Your task to perform on an android device: see tabs open on other devices in the chrome app Image 0: 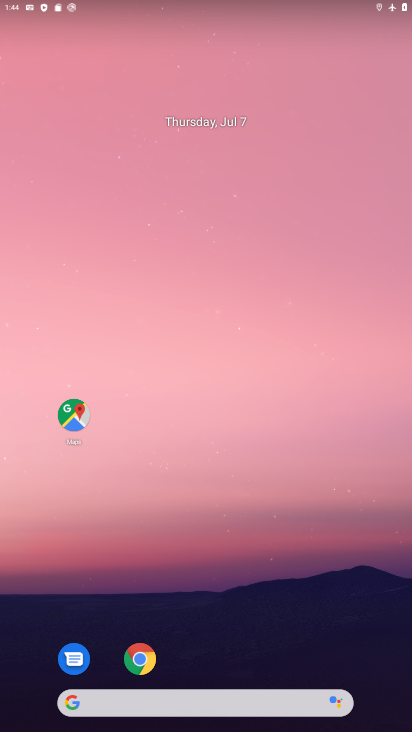
Step 0: drag from (224, 675) to (250, 219)
Your task to perform on an android device: see tabs open on other devices in the chrome app Image 1: 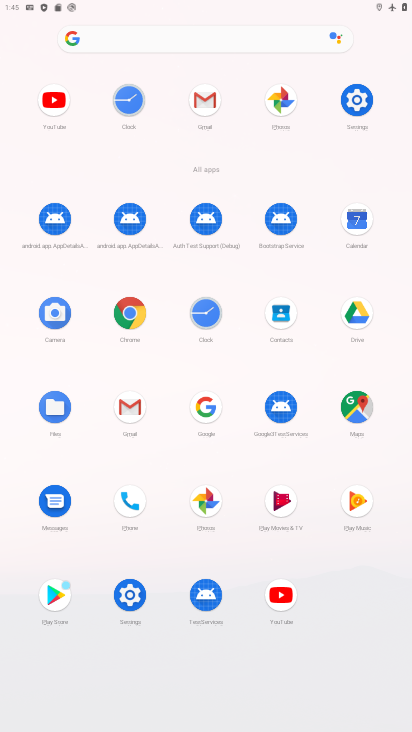
Step 1: click (131, 321)
Your task to perform on an android device: see tabs open on other devices in the chrome app Image 2: 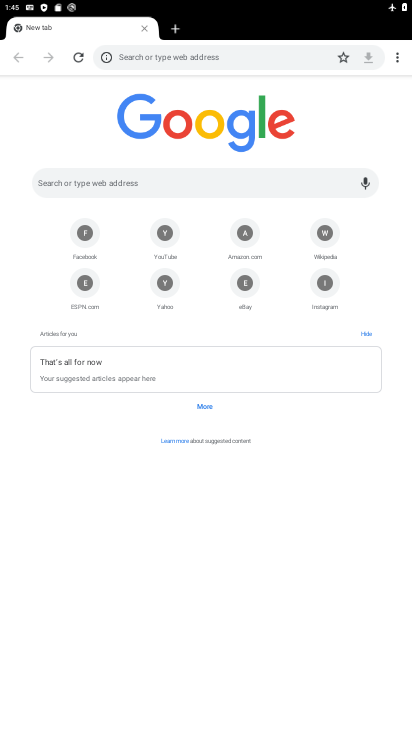
Step 2: task complete